Your task to perform on an android device: set an alarm Image 0: 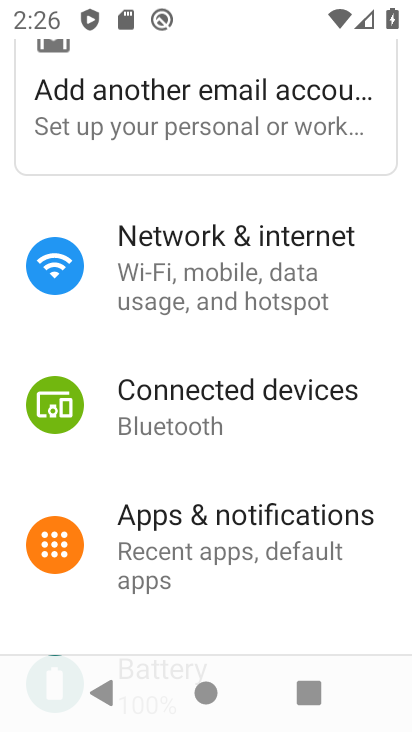
Step 0: press home button
Your task to perform on an android device: set an alarm Image 1: 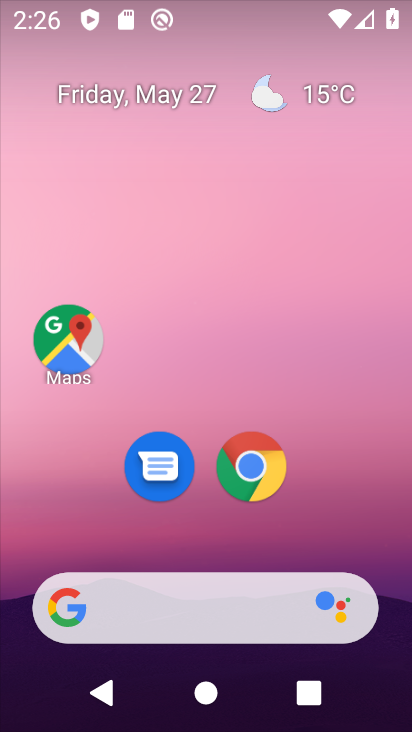
Step 1: drag from (380, 577) to (320, 111)
Your task to perform on an android device: set an alarm Image 2: 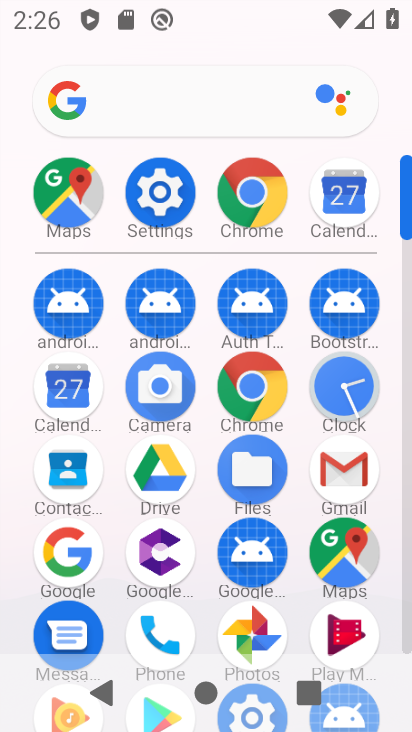
Step 2: drag from (271, 536) to (267, 230)
Your task to perform on an android device: set an alarm Image 3: 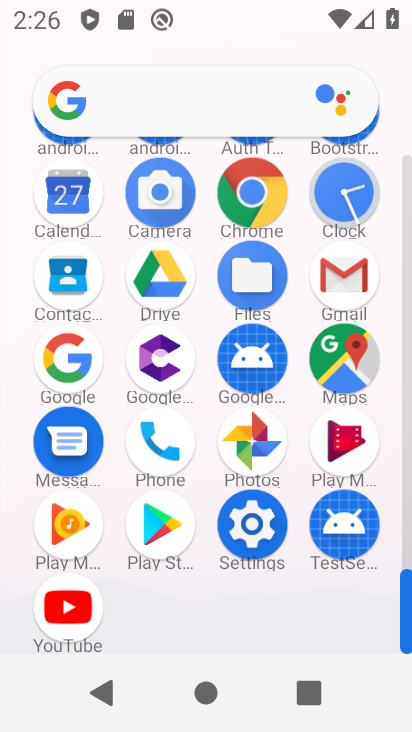
Step 3: click (355, 222)
Your task to perform on an android device: set an alarm Image 4: 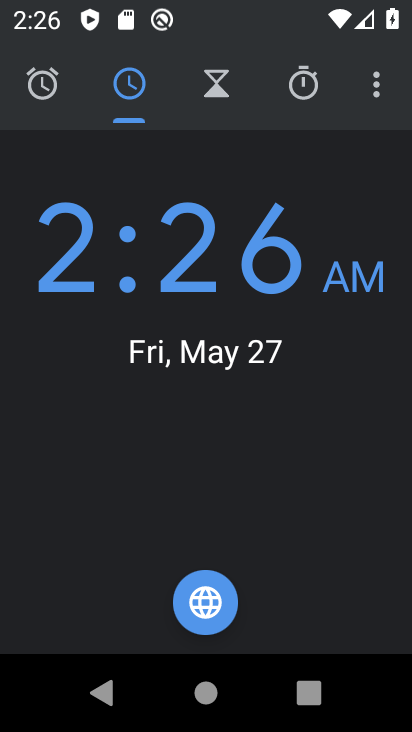
Step 4: click (40, 83)
Your task to perform on an android device: set an alarm Image 5: 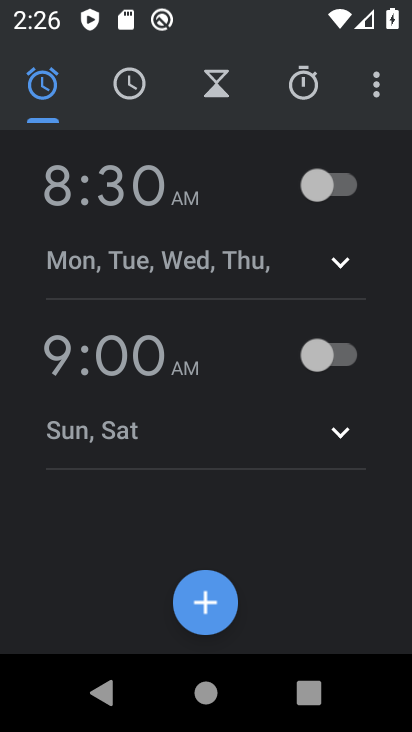
Step 5: click (220, 623)
Your task to perform on an android device: set an alarm Image 6: 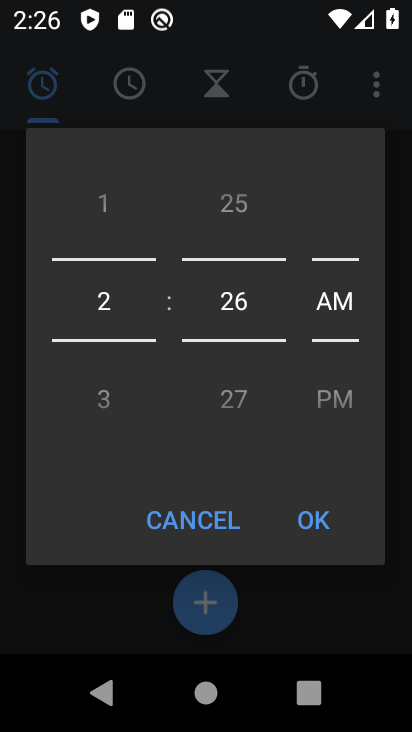
Step 6: click (324, 522)
Your task to perform on an android device: set an alarm Image 7: 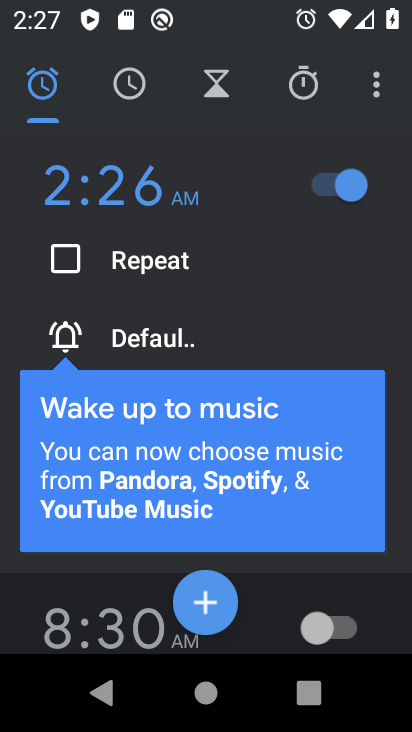
Step 7: task complete